Your task to perform on an android device: Open eBay Image 0: 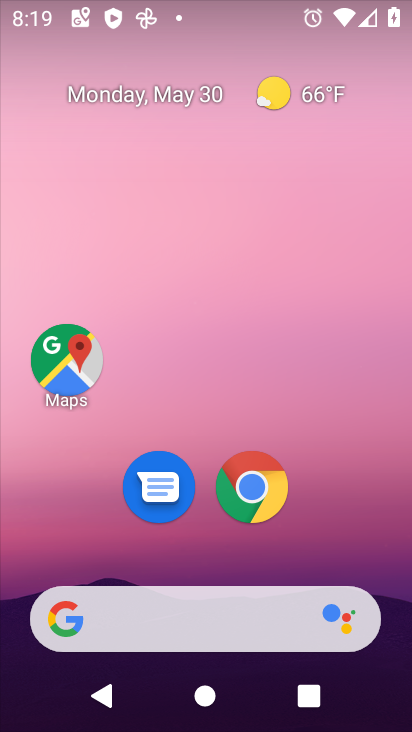
Step 0: press home button
Your task to perform on an android device: Open eBay Image 1: 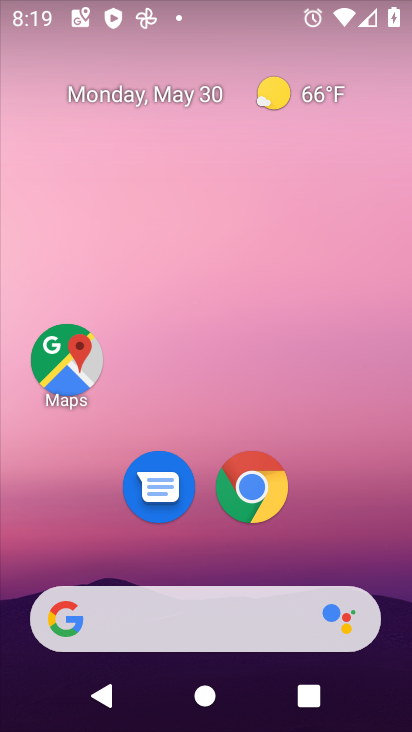
Step 1: click (68, 641)
Your task to perform on an android device: Open eBay Image 2: 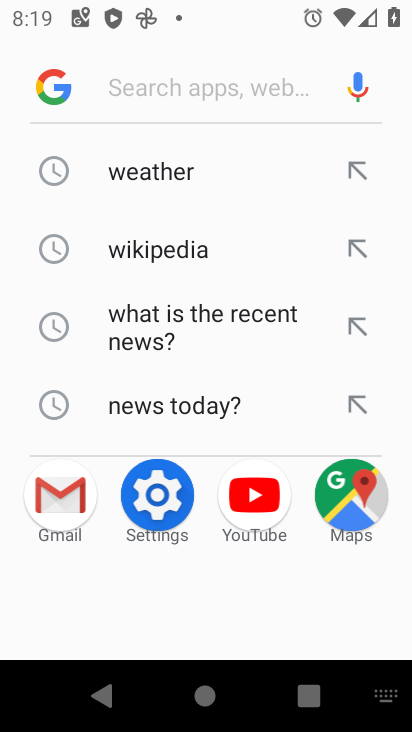
Step 2: type "eBay"
Your task to perform on an android device: Open eBay Image 3: 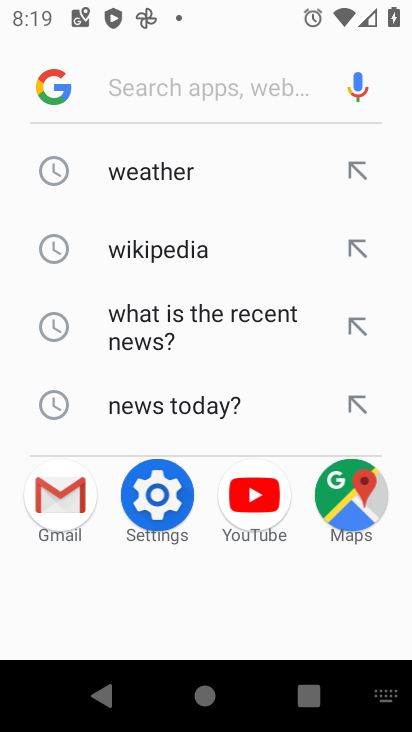
Step 3: click (140, 97)
Your task to perform on an android device: Open eBay Image 4: 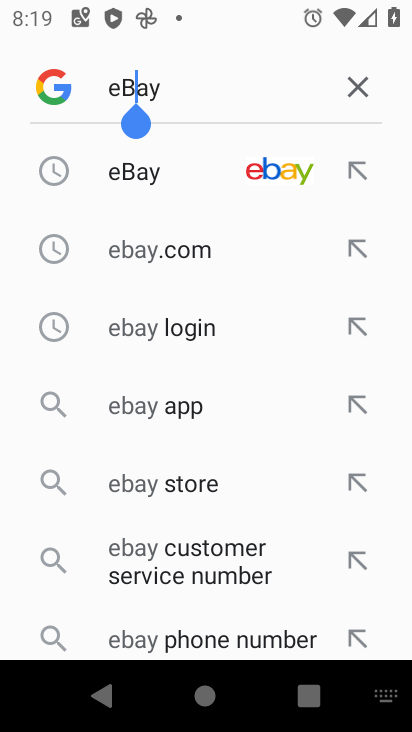
Step 4: click (142, 187)
Your task to perform on an android device: Open eBay Image 5: 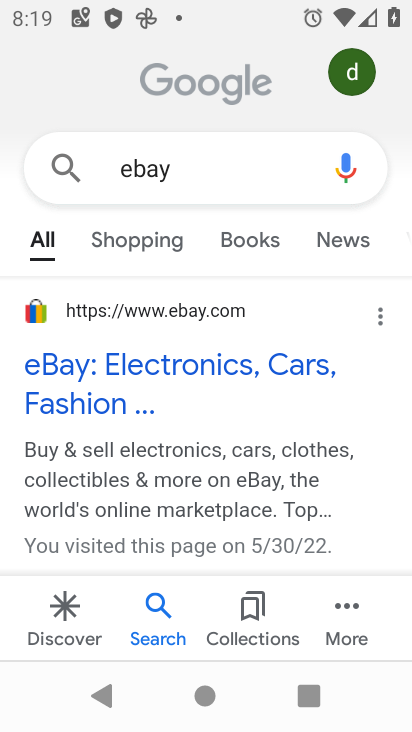
Step 5: click (143, 377)
Your task to perform on an android device: Open eBay Image 6: 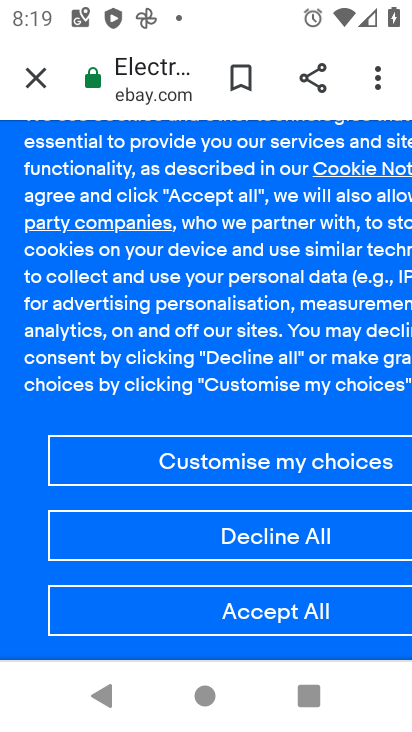
Step 6: task complete